Your task to perform on an android device: Open notification settings Image 0: 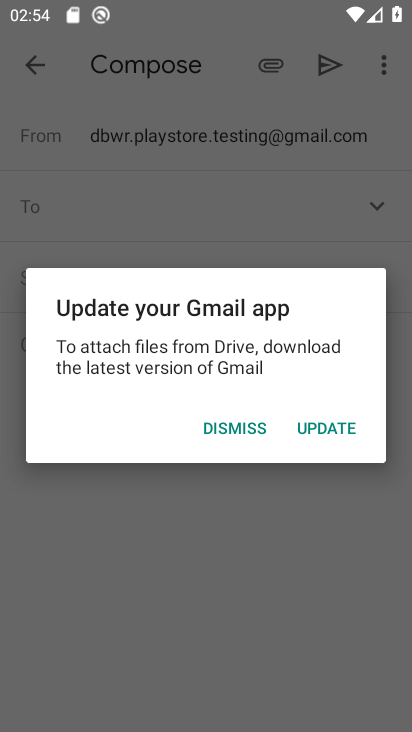
Step 0: press home button
Your task to perform on an android device: Open notification settings Image 1: 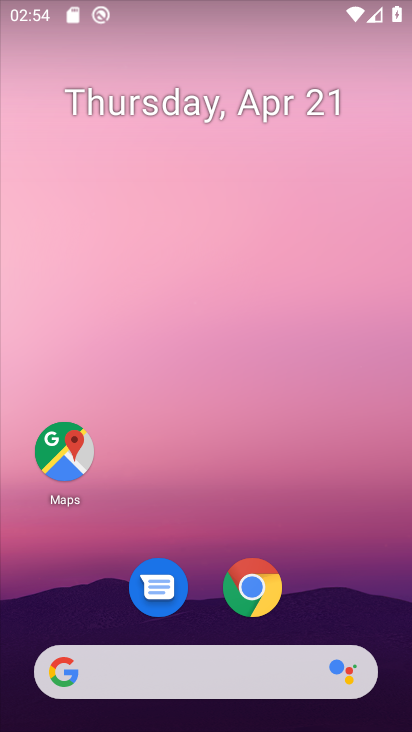
Step 1: drag from (349, 581) to (372, 131)
Your task to perform on an android device: Open notification settings Image 2: 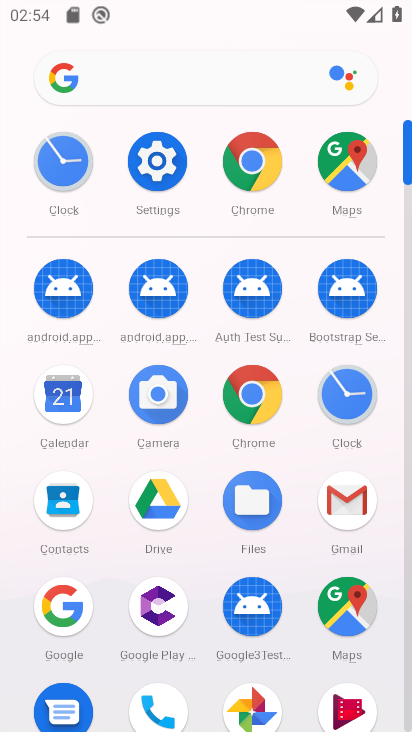
Step 2: click (162, 167)
Your task to perform on an android device: Open notification settings Image 3: 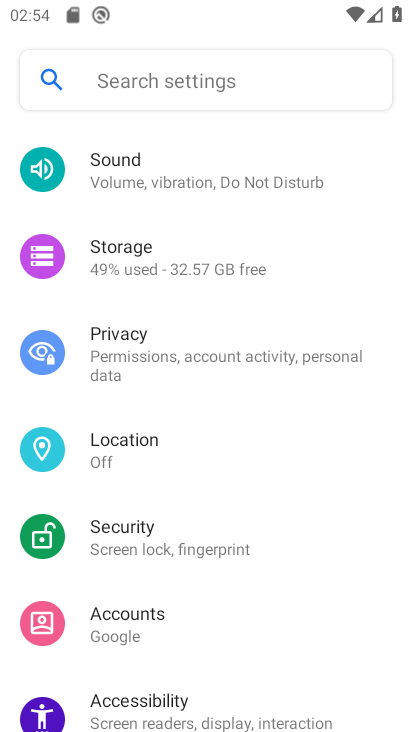
Step 3: drag from (342, 564) to (367, 362)
Your task to perform on an android device: Open notification settings Image 4: 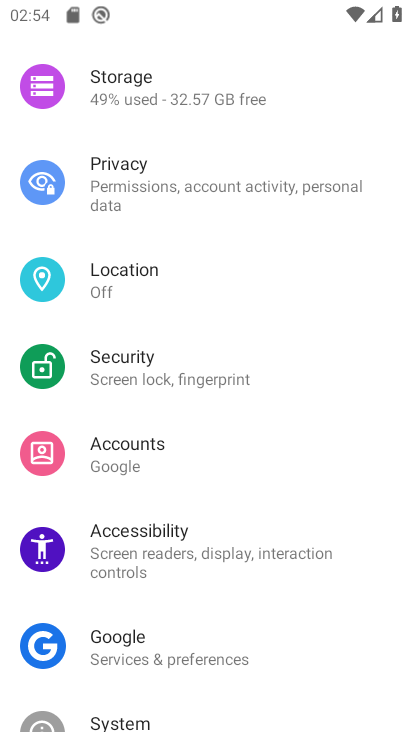
Step 4: drag from (364, 618) to (362, 449)
Your task to perform on an android device: Open notification settings Image 5: 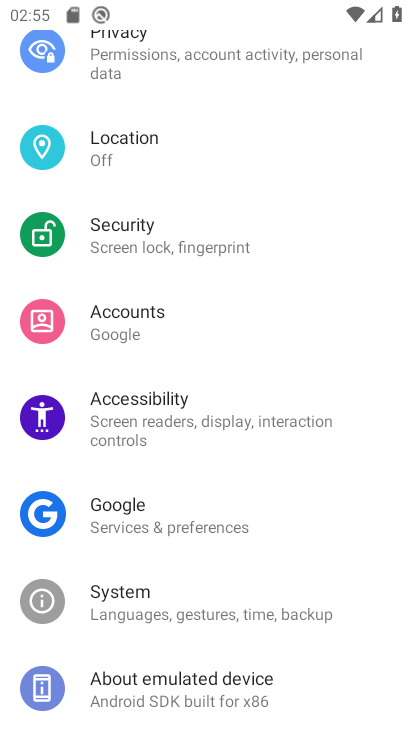
Step 5: drag from (353, 661) to (359, 449)
Your task to perform on an android device: Open notification settings Image 6: 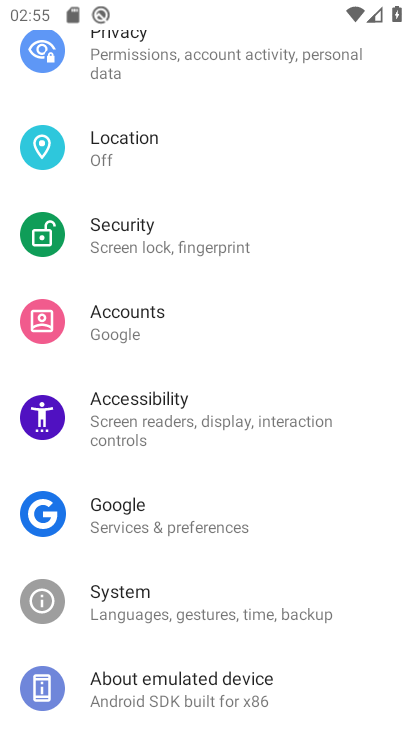
Step 6: drag from (367, 357) to (366, 484)
Your task to perform on an android device: Open notification settings Image 7: 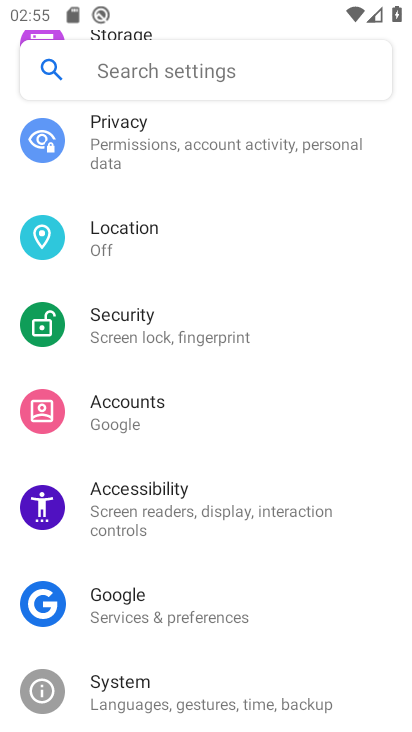
Step 7: drag from (368, 379) to (365, 513)
Your task to perform on an android device: Open notification settings Image 8: 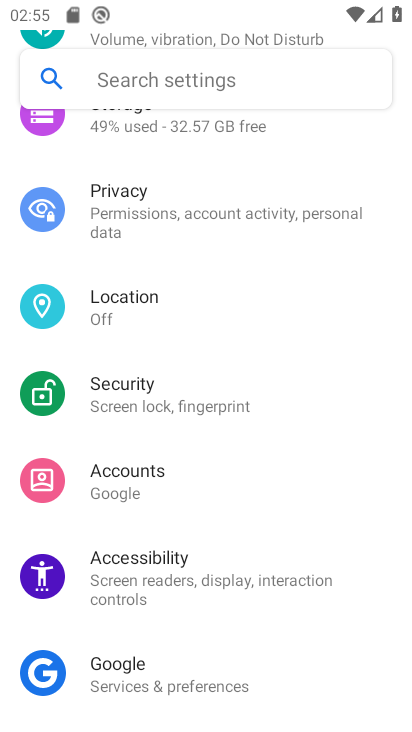
Step 8: drag from (381, 332) to (378, 481)
Your task to perform on an android device: Open notification settings Image 9: 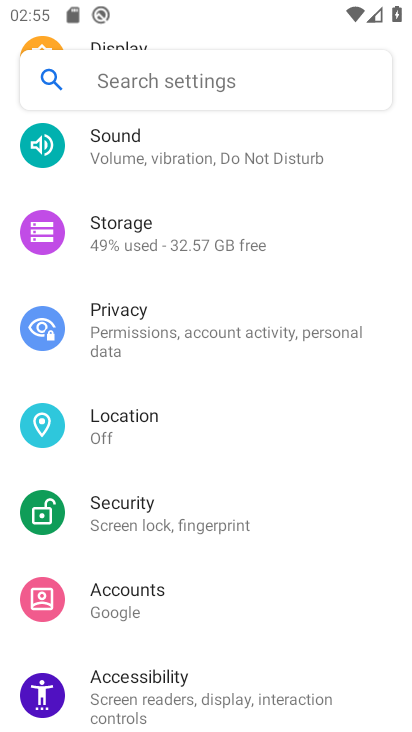
Step 9: drag from (388, 307) to (391, 429)
Your task to perform on an android device: Open notification settings Image 10: 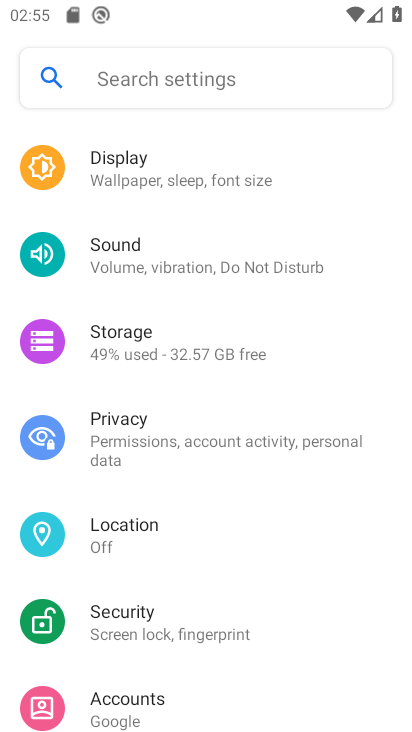
Step 10: drag from (391, 298) to (379, 431)
Your task to perform on an android device: Open notification settings Image 11: 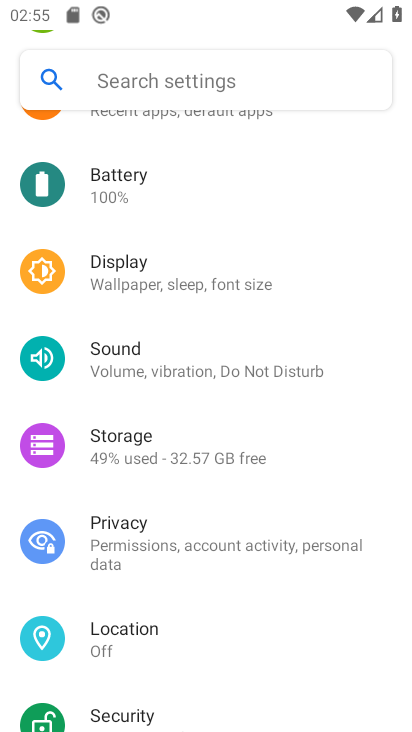
Step 11: drag from (378, 286) to (370, 427)
Your task to perform on an android device: Open notification settings Image 12: 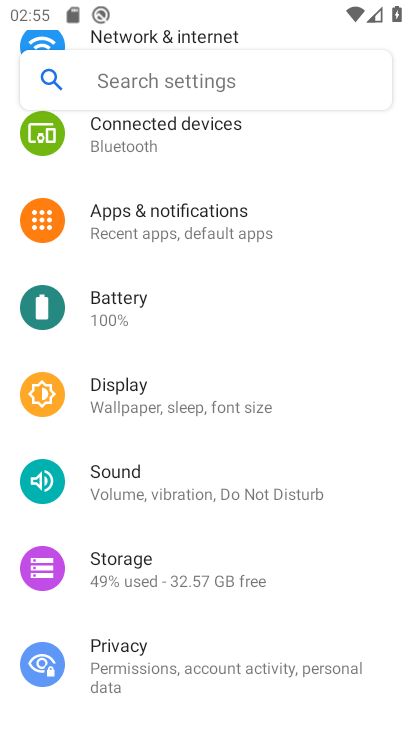
Step 12: drag from (374, 274) to (372, 407)
Your task to perform on an android device: Open notification settings Image 13: 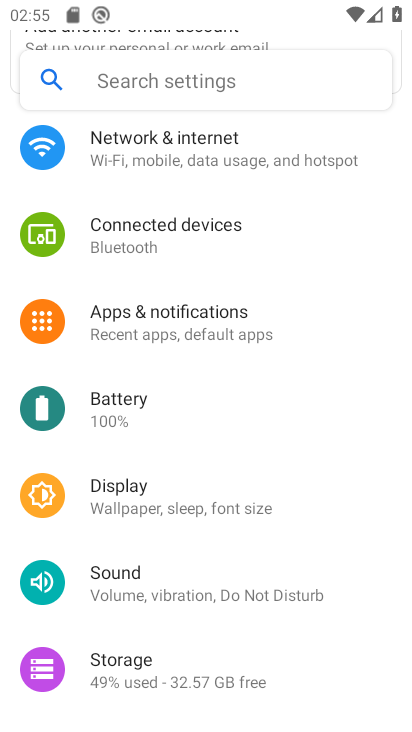
Step 13: drag from (366, 266) to (358, 402)
Your task to perform on an android device: Open notification settings Image 14: 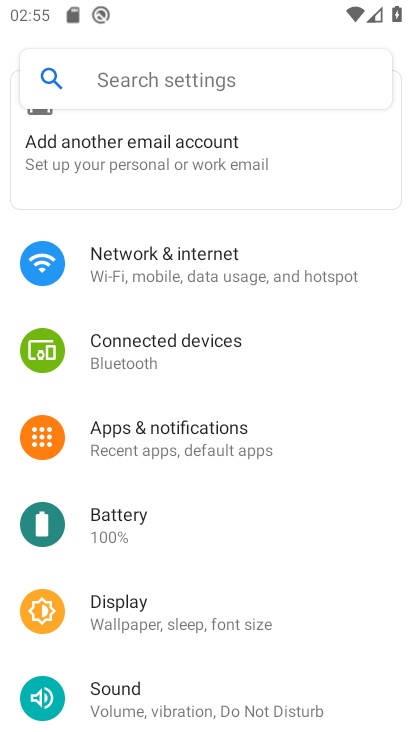
Step 14: drag from (379, 239) to (377, 382)
Your task to perform on an android device: Open notification settings Image 15: 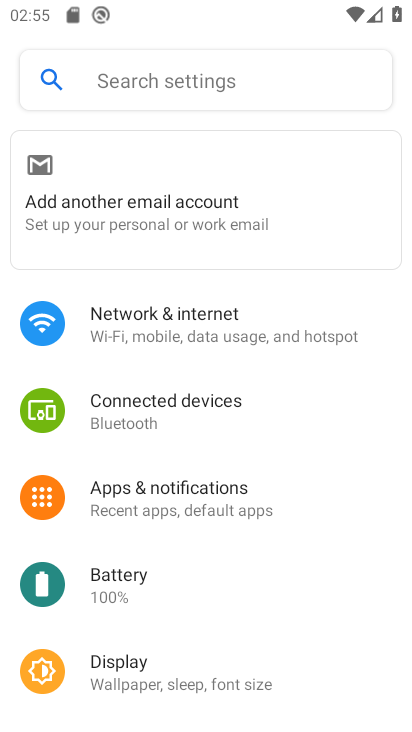
Step 15: click (253, 510)
Your task to perform on an android device: Open notification settings Image 16: 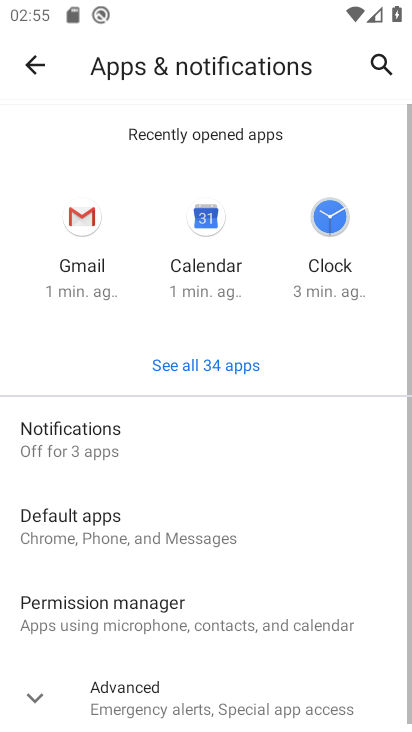
Step 16: click (97, 450)
Your task to perform on an android device: Open notification settings Image 17: 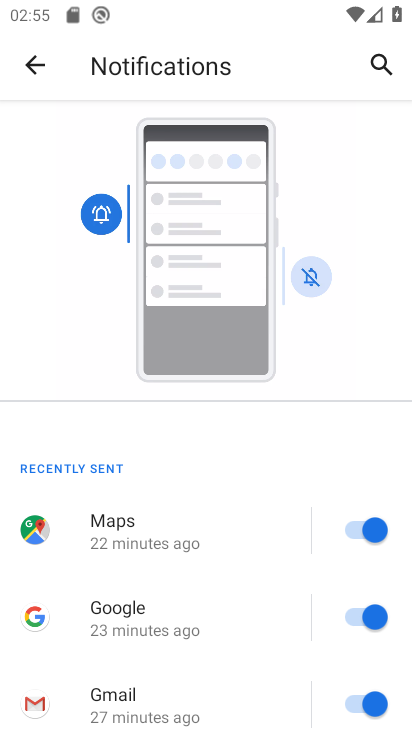
Step 17: task complete